Your task to perform on an android device: check out phone information Image 0: 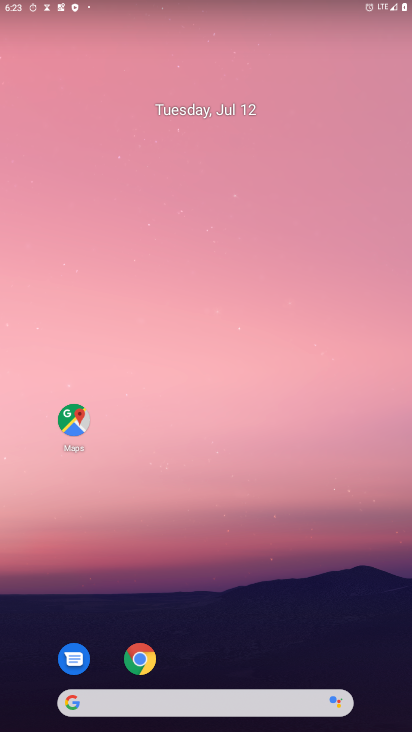
Step 0: drag from (206, 406) to (211, 135)
Your task to perform on an android device: check out phone information Image 1: 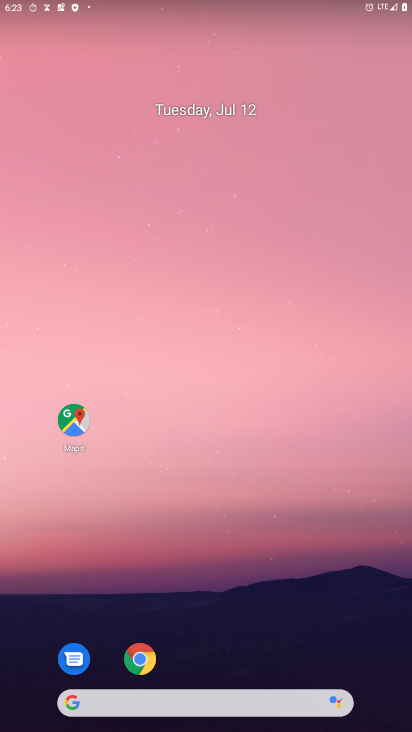
Step 1: drag from (193, 104) to (193, 45)
Your task to perform on an android device: check out phone information Image 2: 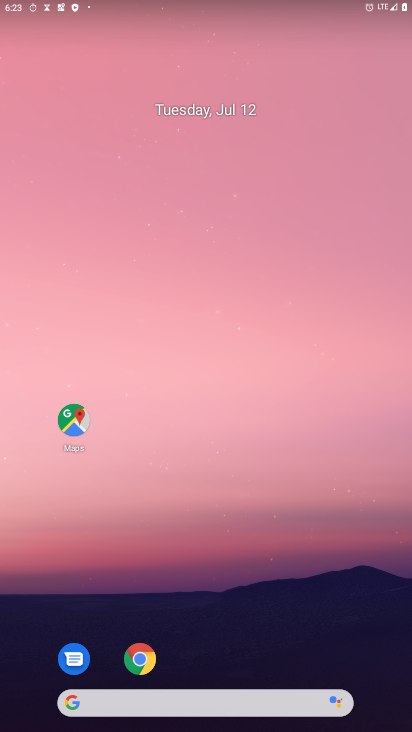
Step 2: drag from (184, 135) to (183, 23)
Your task to perform on an android device: check out phone information Image 3: 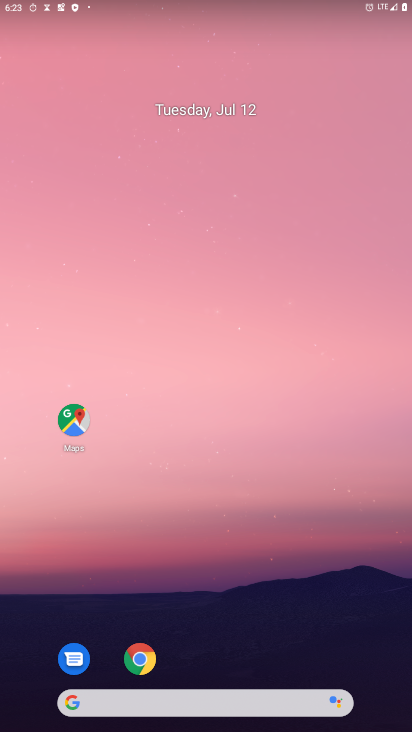
Step 3: drag from (194, 577) to (191, 23)
Your task to perform on an android device: check out phone information Image 4: 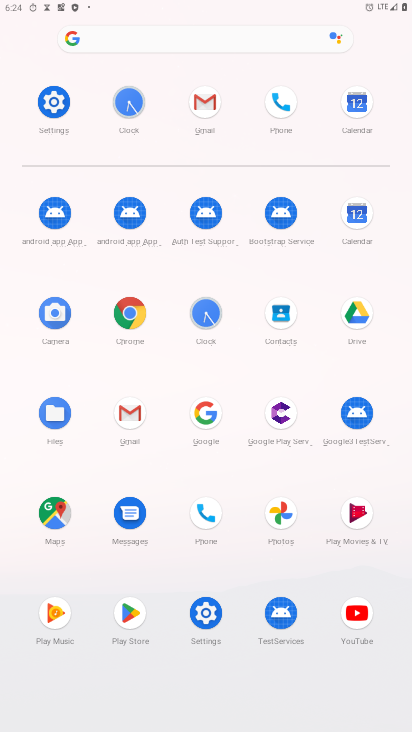
Step 4: click (57, 114)
Your task to perform on an android device: check out phone information Image 5: 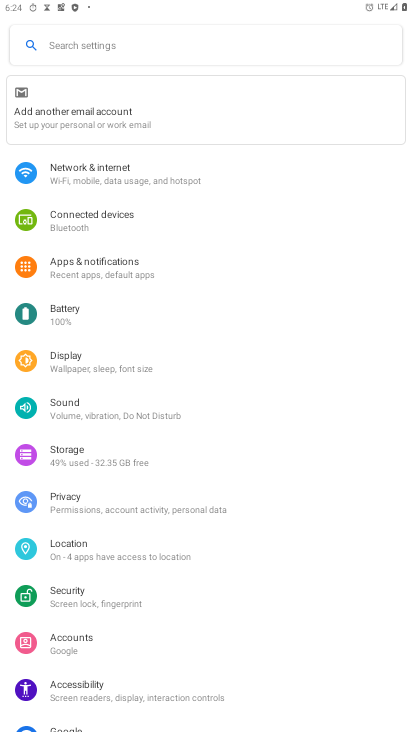
Step 5: drag from (221, 469) to (226, 183)
Your task to perform on an android device: check out phone information Image 6: 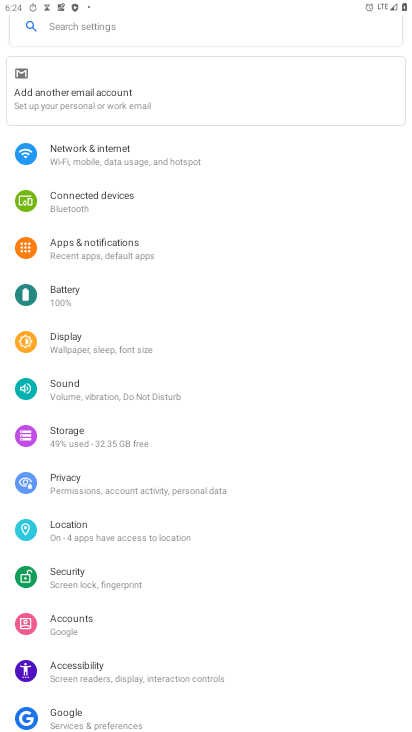
Step 6: drag from (132, 496) to (110, 239)
Your task to perform on an android device: check out phone information Image 7: 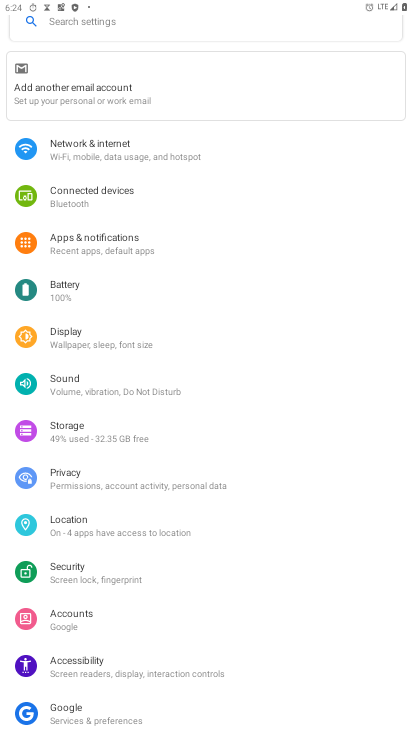
Step 7: click (154, 212)
Your task to perform on an android device: check out phone information Image 8: 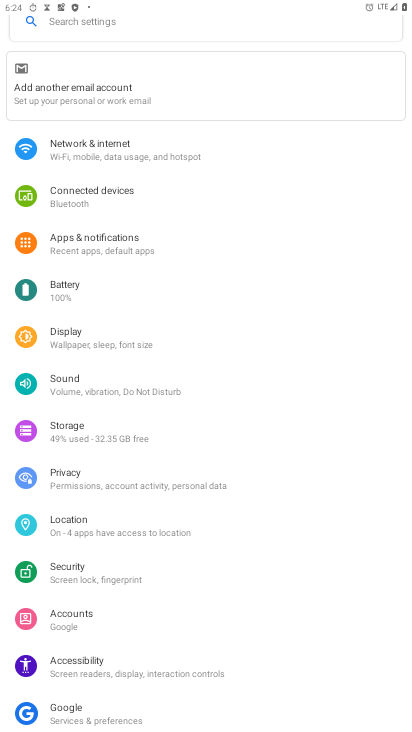
Step 8: drag from (93, 637) to (94, 380)
Your task to perform on an android device: check out phone information Image 9: 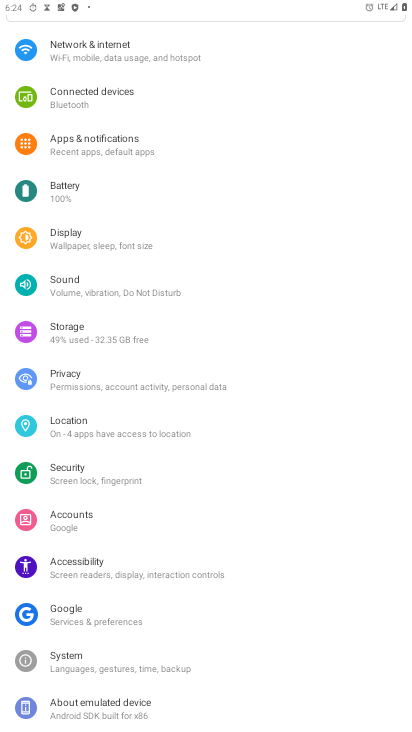
Step 9: click (93, 703)
Your task to perform on an android device: check out phone information Image 10: 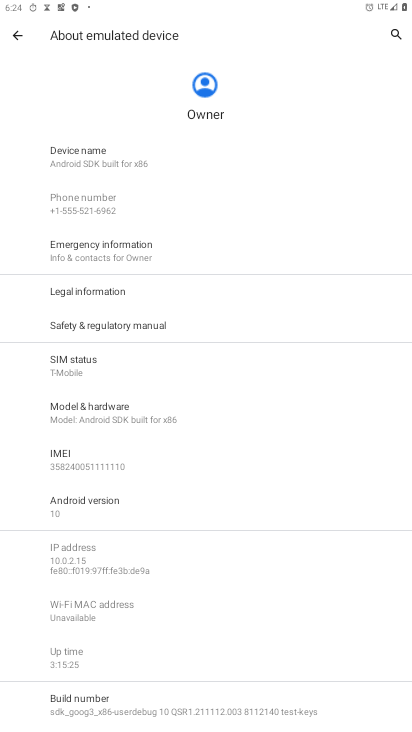
Step 10: task complete